Your task to perform on an android device: check battery use Image 0: 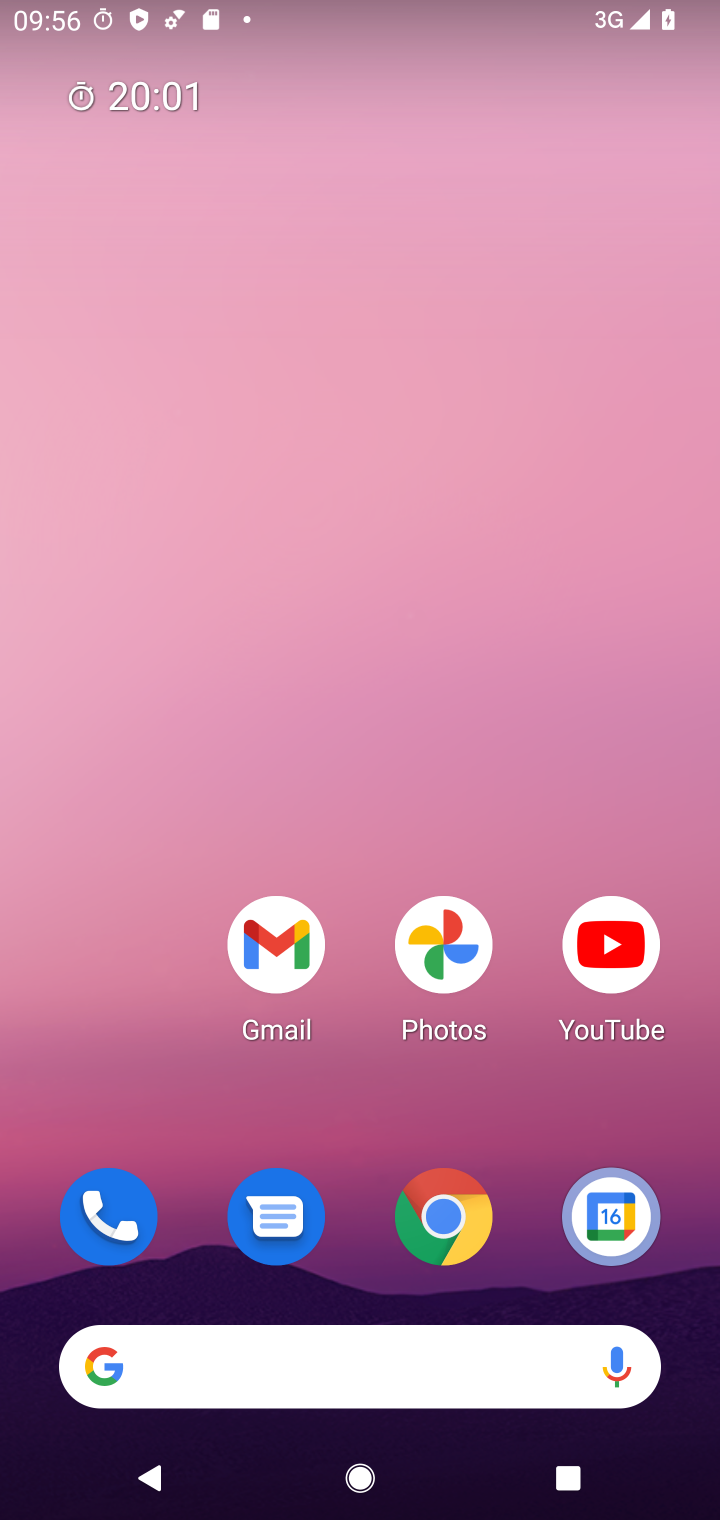
Step 0: drag from (306, 603) to (249, 87)
Your task to perform on an android device: check battery use Image 1: 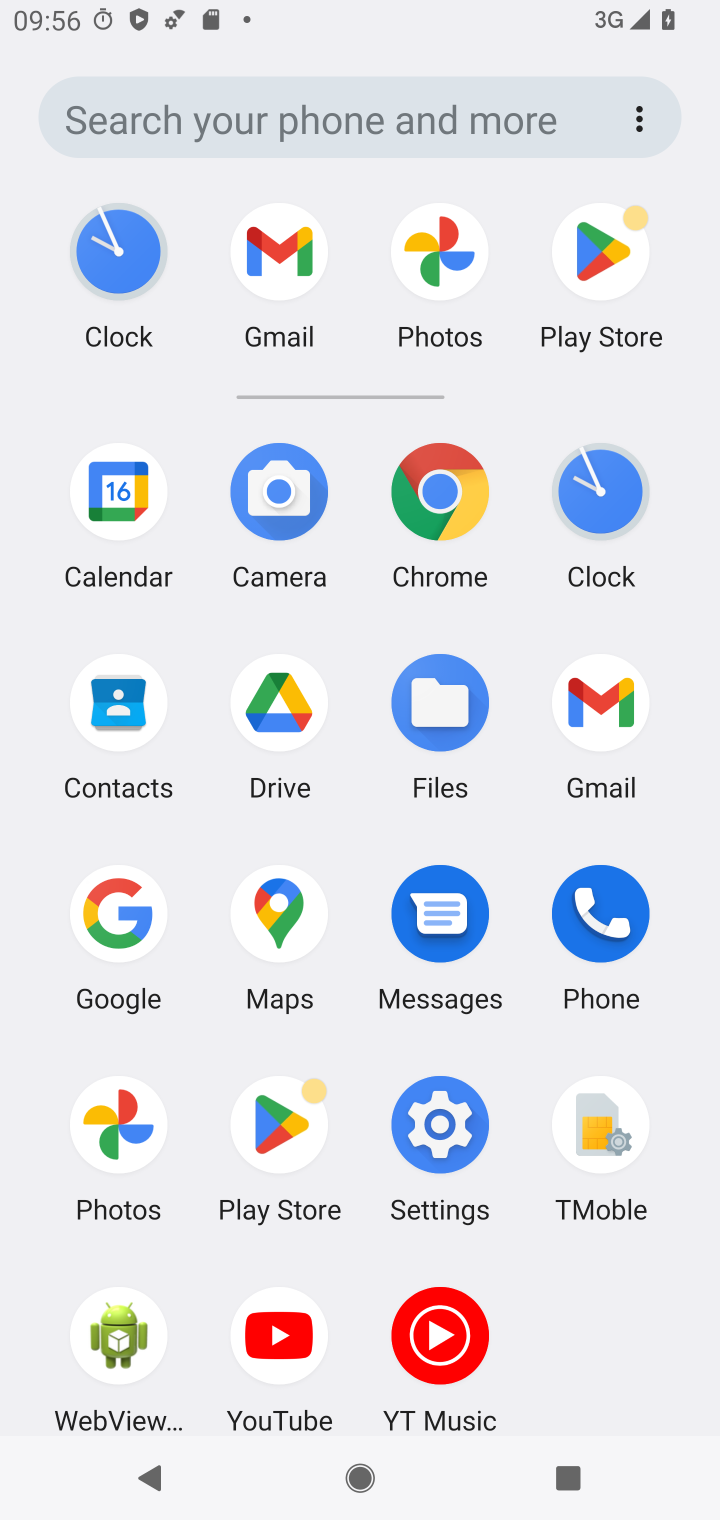
Step 1: click (452, 1124)
Your task to perform on an android device: check battery use Image 2: 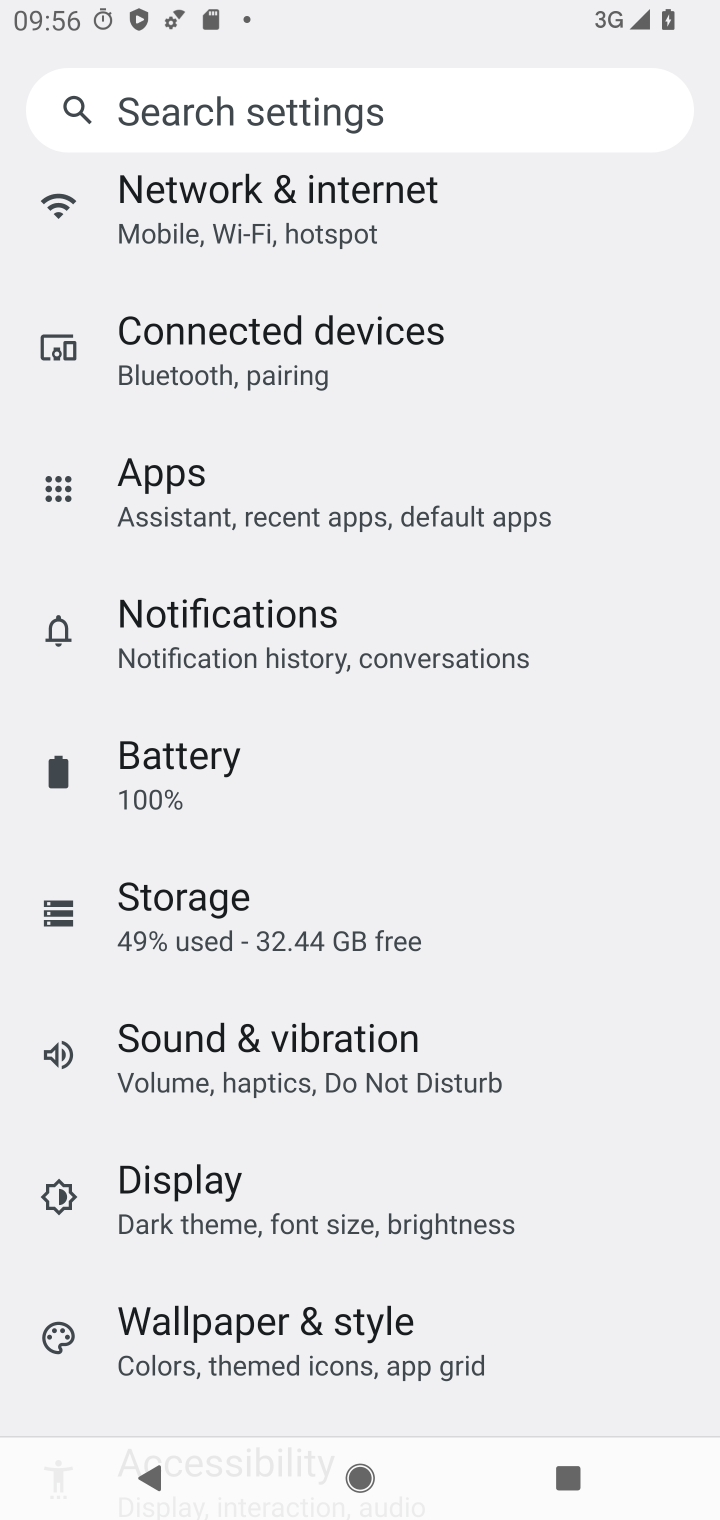
Step 2: click (143, 753)
Your task to perform on an android device: check battery use Image 3: 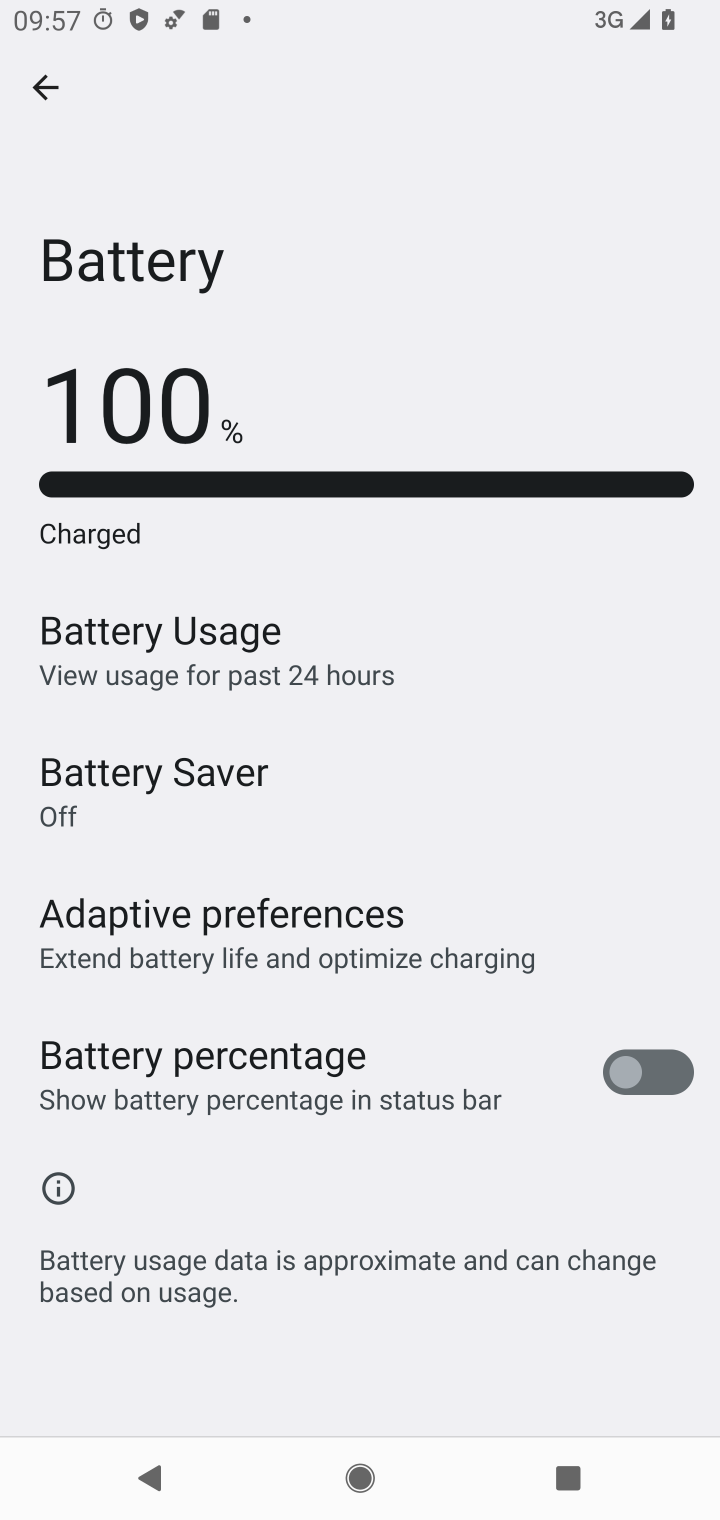
Step 3: drag from (349, 1323) to (322, 561)
Your task to perform on an android device: check battery use Image 4: 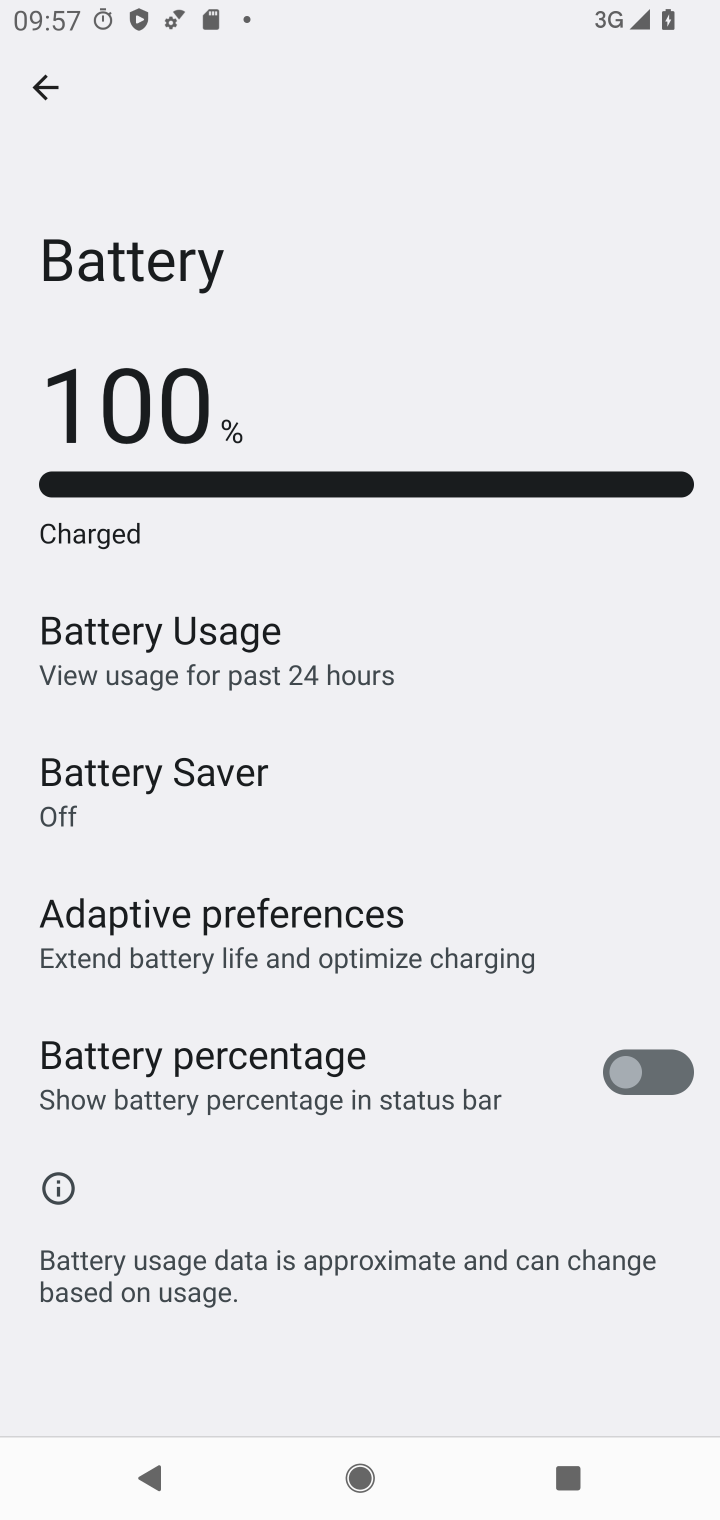
Step 4: click (210, 653)
Your task to perform on an android device: check battery use Image 5: 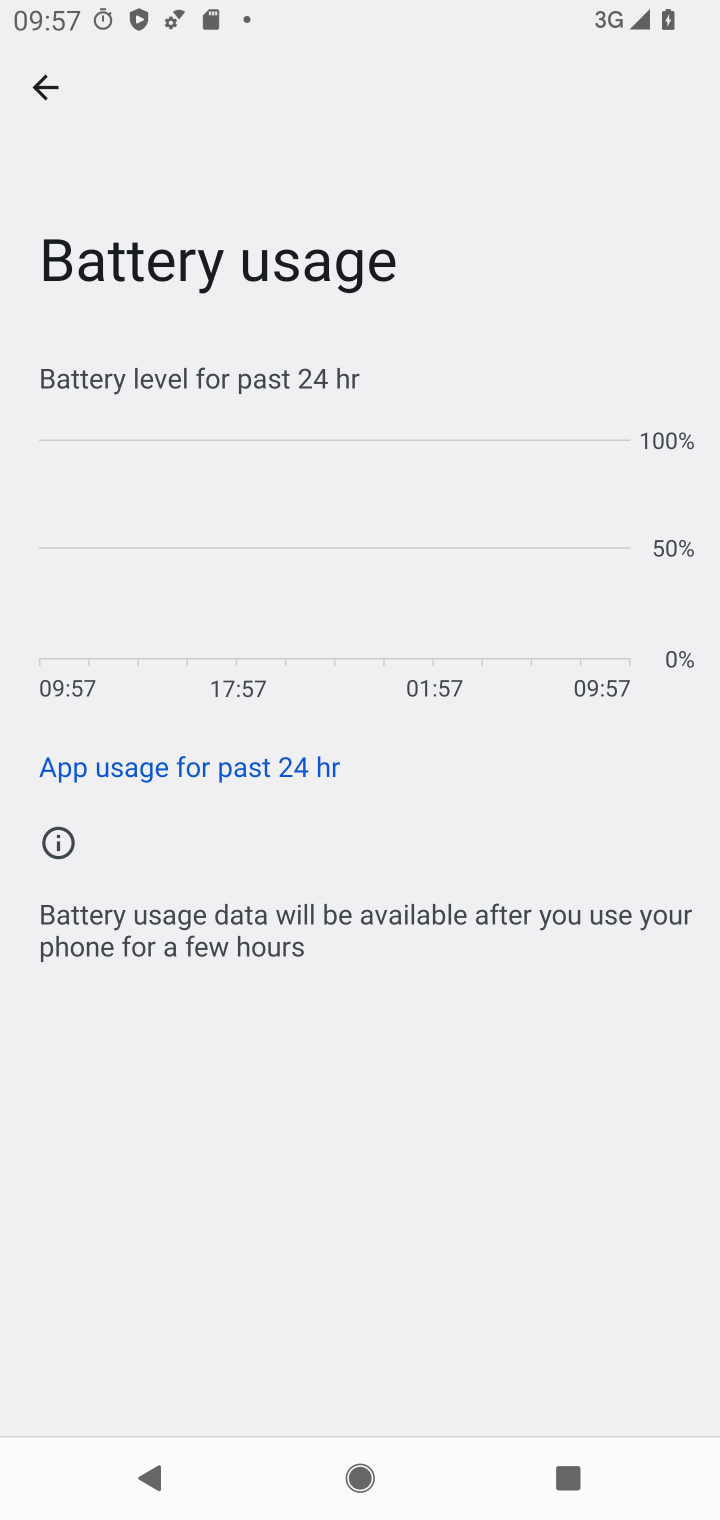
Step 5: task complete